Your task to perform on an android device: Open Google Maps Image 0: 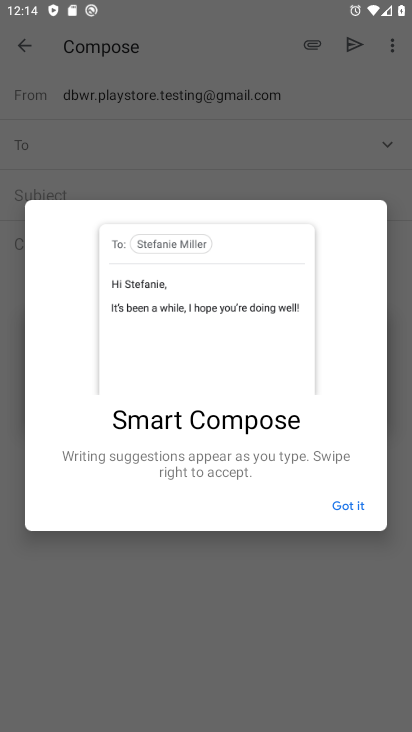
Step 0: press home button
Your task to perform on an android device: Open Google Maps Image 1: 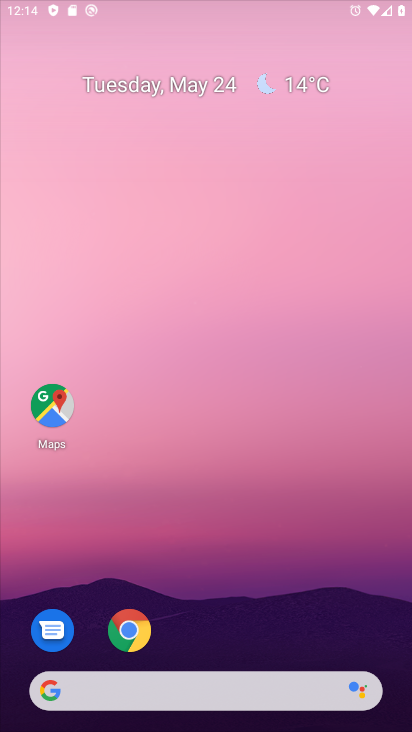
Step 1: drag from (332, 618) to (282, 194)
Your task to perform on an android device: Open Google Maps Image 2: 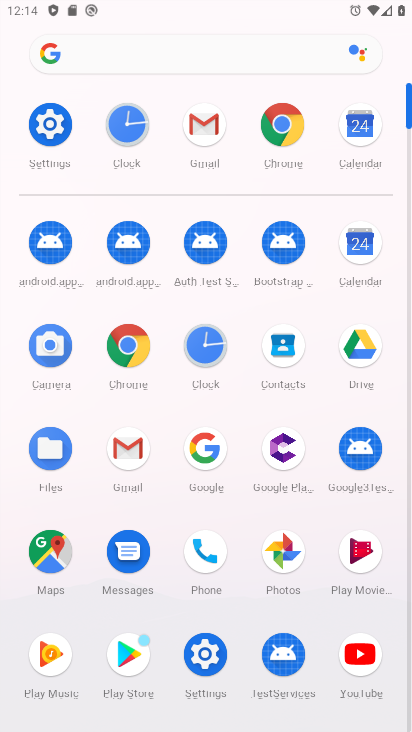
Step 2: drag from (158, 605) to (158, 463)
Your task to perform on an android device: Open Google Maps Image 3: 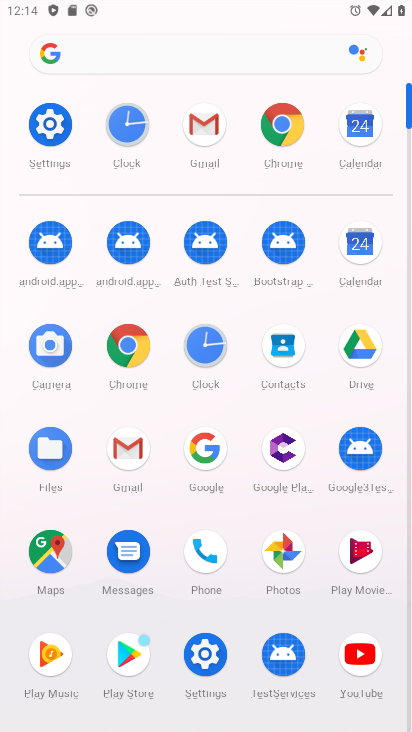
Step 3: click (48, 541)
Your task to perform on an android device: Open Google Maps Image 4: 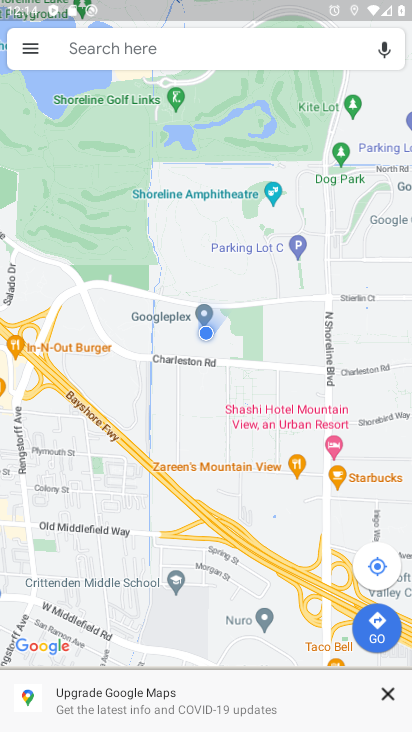
Step 4: click (168, 57)
Your task to perform on an android device: Open Google Maps Image 5: 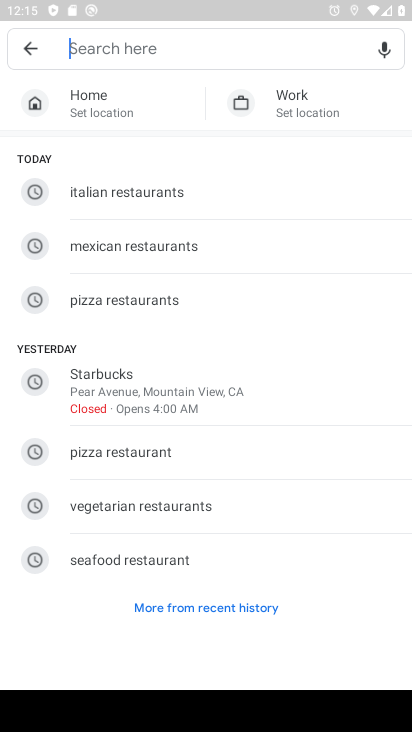
Step 5: task complete